Your task to perform on an android device: turn off smart reply in the gmail app Image 0: 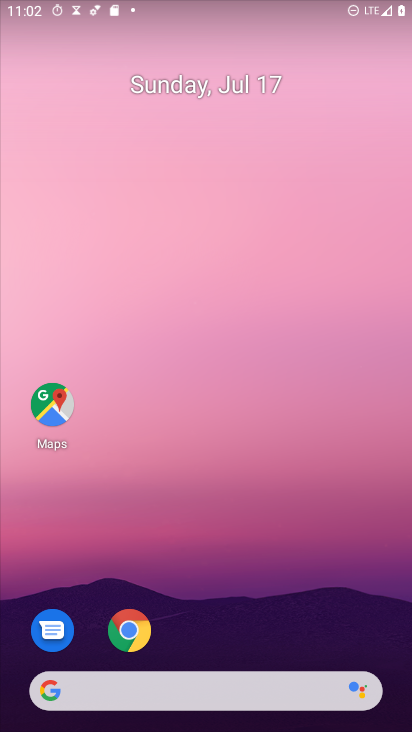
Step 0: drag from (286, 649) to (297, 9)
Your task to perform on an android device: turn off smart reply in the gmail app Image 1: 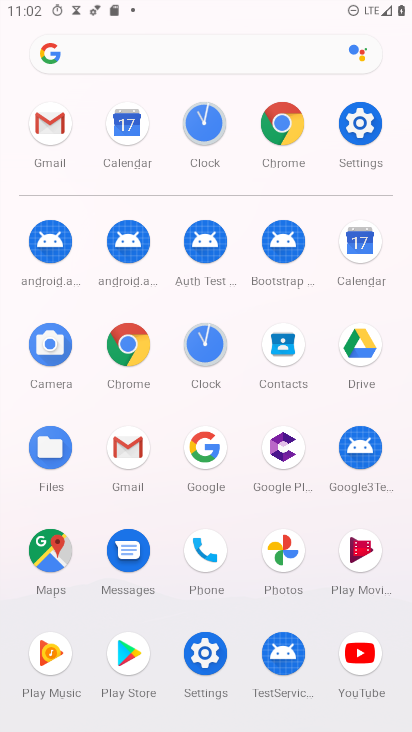
Step 1: click (137, 451)
Your task to perform on an android device: turn off smart reply in the gmail app Image 2: 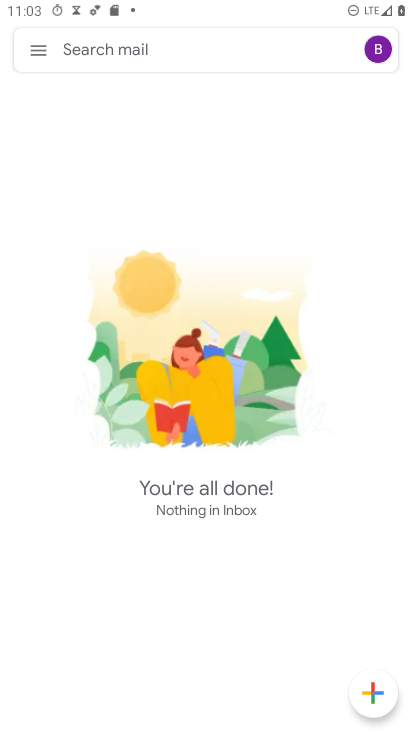
Step 2: click (41, 41)
Your task to perform on an android device: turn off smart reply in the gmail app Image 3: 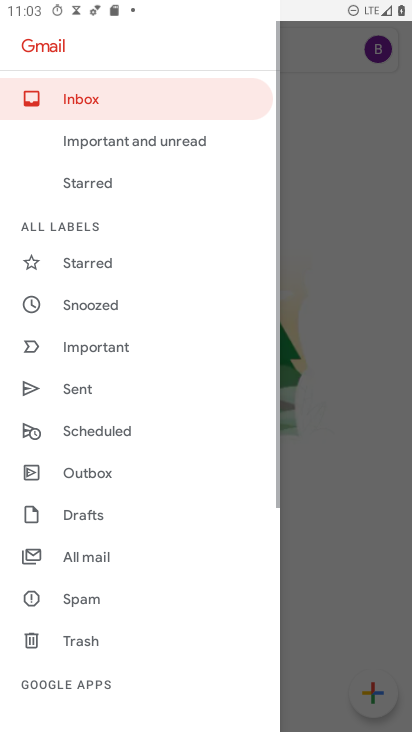
Step 3: drag from (111, 679) to (161, 290)
Your task to perform on an android device: turn off smart reply in the gmail app Image 4: 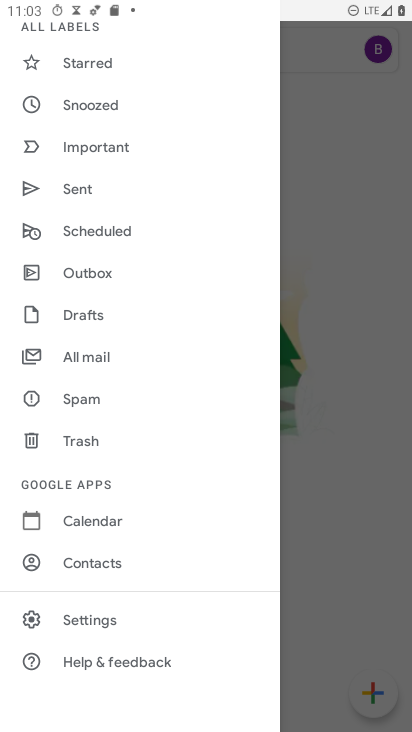
Step 4: click (137, 629)
Your task to perform on an android device: turn off smart reply in the gmail app Image 5: 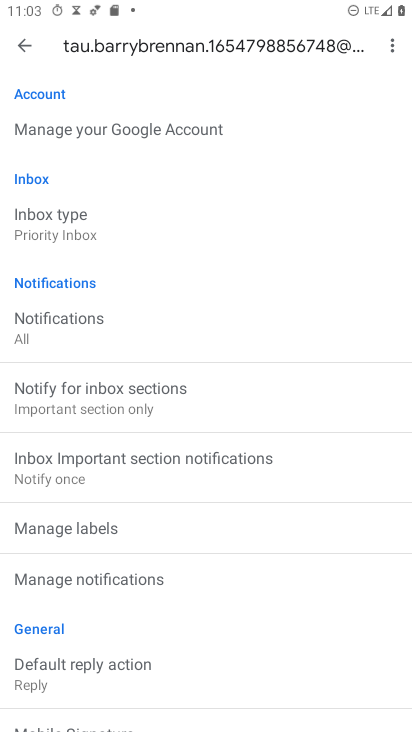
Step 5: drag from (188, 608) to (158, 133)
Your task to perform on an android device: turn off smart reply in the gmail app Image 6: 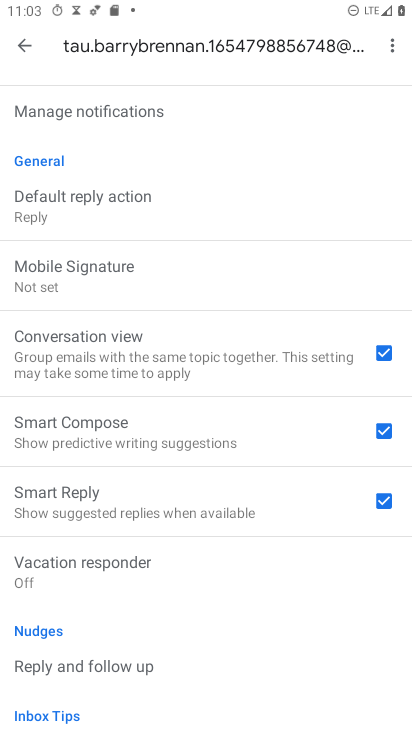
Step 6: click (379, 502)
Your task to perform on an android device: turn off smart reply in the gmail app Image 7: 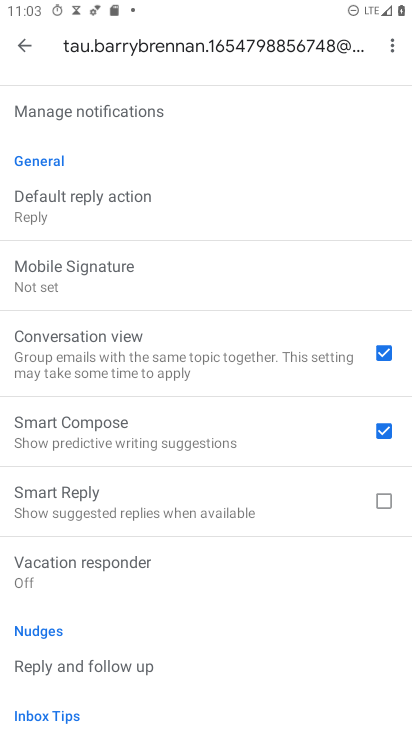
Step 7: task complete